Your task to perform on an android device: Go to notification settings Image 0: 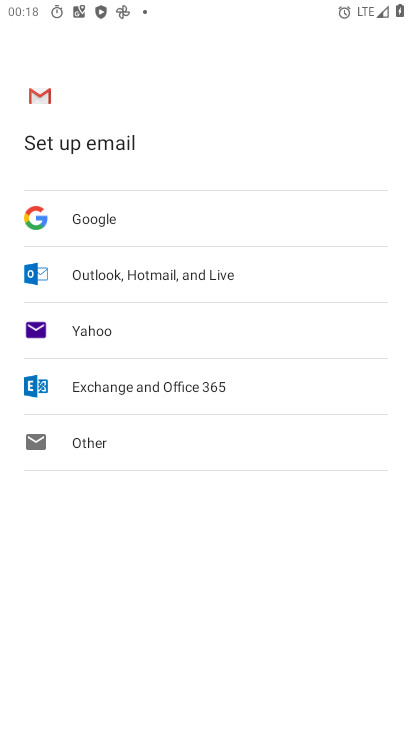
Step 0: press home button
Your task to perform on an android device: Go to notification settings Image 1: 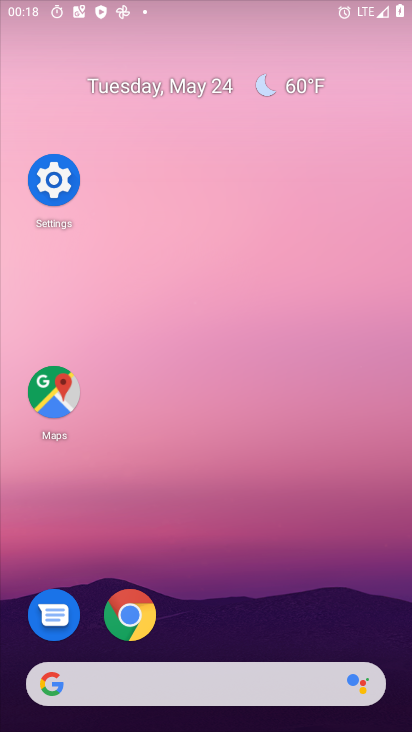
Step 1: drag from (205, 586) to (305, 54)
Your task to perform on an android device: Go to notification settings Image 2: 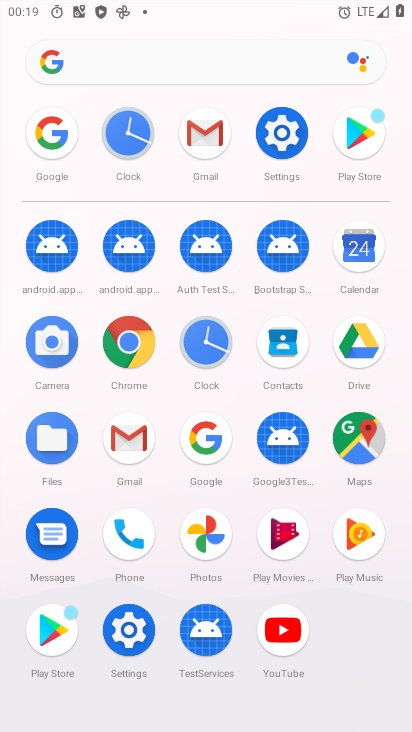
Step 2: click (281, 130)
Your task to perform on an android device: Go to notification settings Image 3: 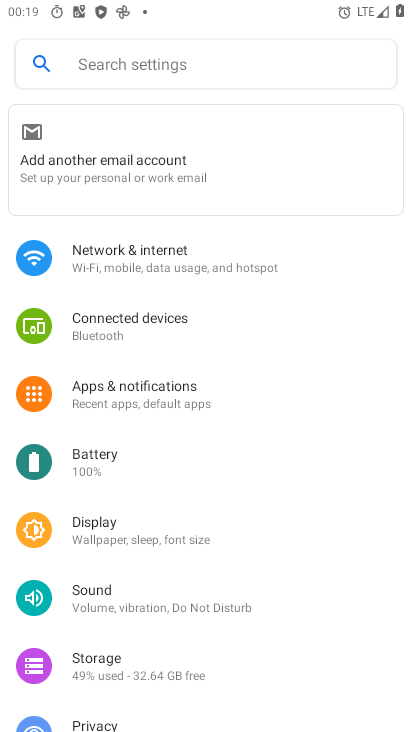
Step 3: click (136, 391)
Your task to perform on an android device: Go to notification settings Image 4: 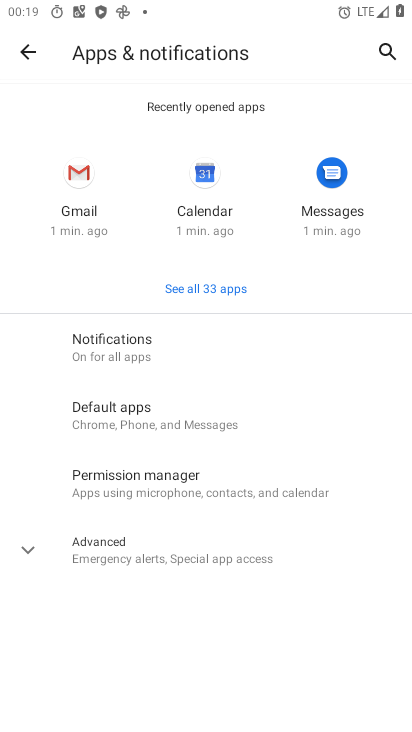
Step 4: click (125, 345)
Your task to perform on an android device: Go to notification settings Image 5: 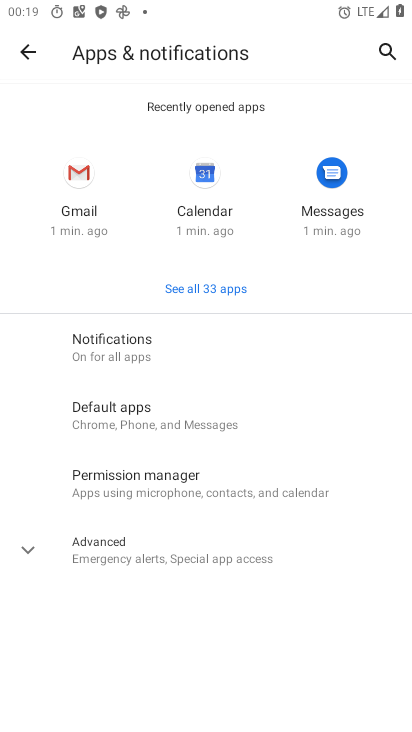
Step 5: task complete